Your task to perform on an android device: change text size in settings app Image 0: 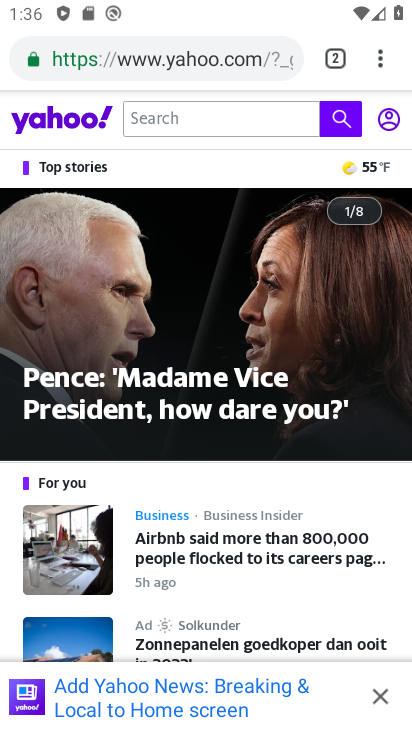
Step 0: press home button
Your task to perform on an android device: change text size in settings app Image 1: 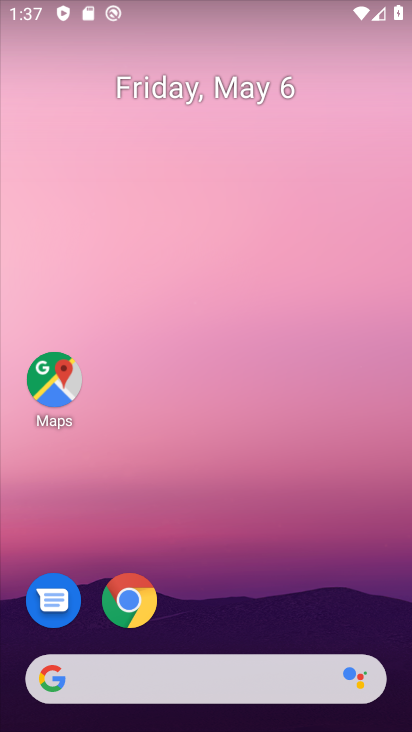
Step 1: drag from (242, 638) to (341, 39)
Your task to perform on an android device: change text size in settings app Image 2: 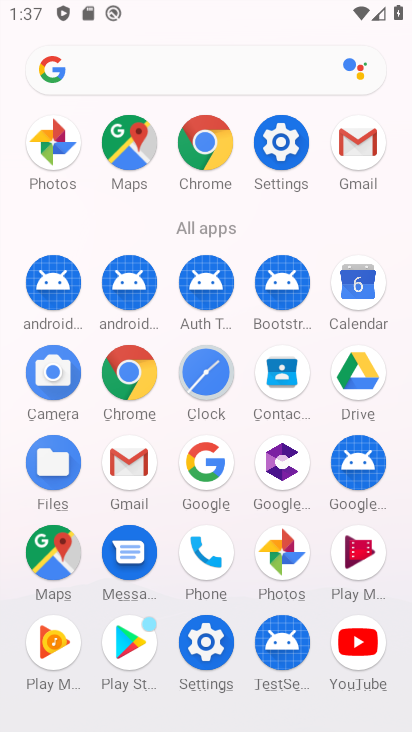
Step 2: click (283, 155)
Your task to perform on an android device: change text size in settings app Image 3: 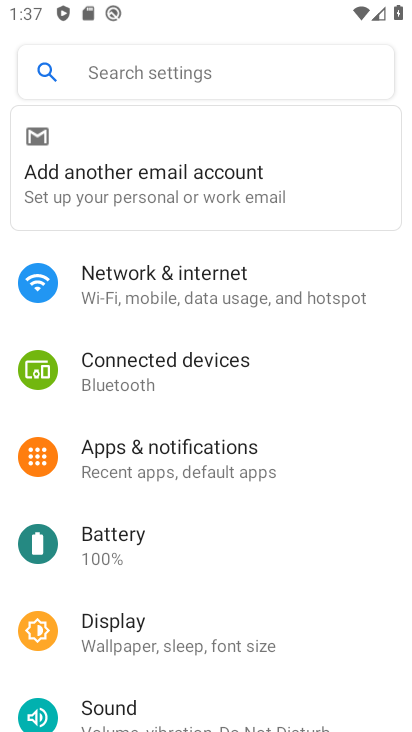
Step 3: drag from (180, 603) to (195, 456)
Your task to perform on an android device: change text size in settings app Image 4: 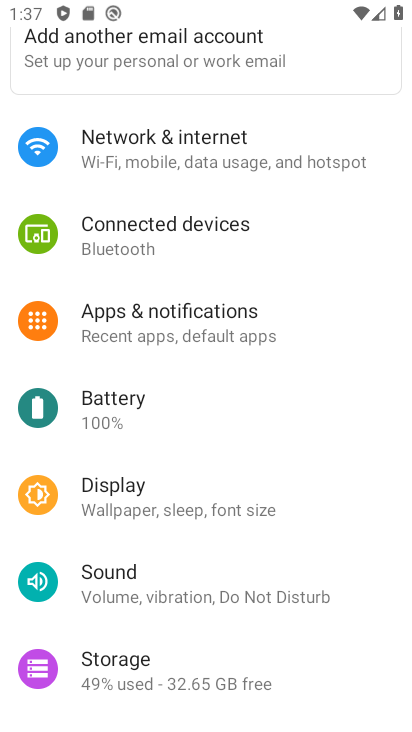
Step 4: click (166, 512)
Your task to perform on an android device: change text size in settings app Image 5: 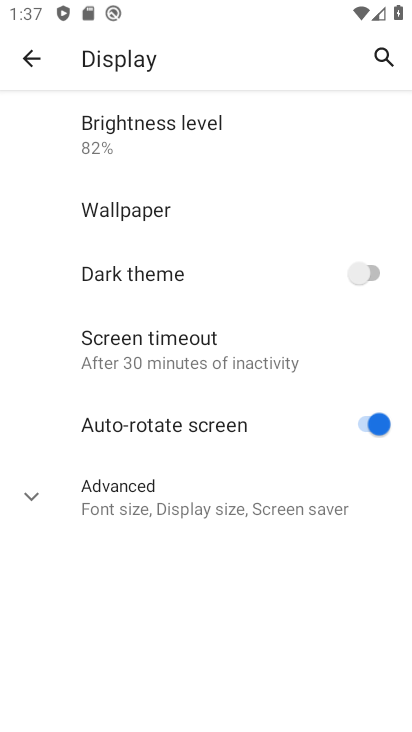
Step 5: click (166, 512)
Your task to perform on an android device: change text size in settings app Image 6: 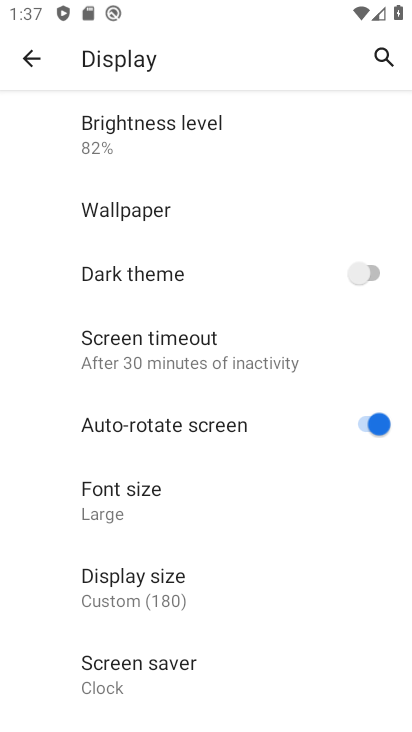
Step 6: click (148, 507)
Your task to perform on an android device: change text size in settings app Image 7: 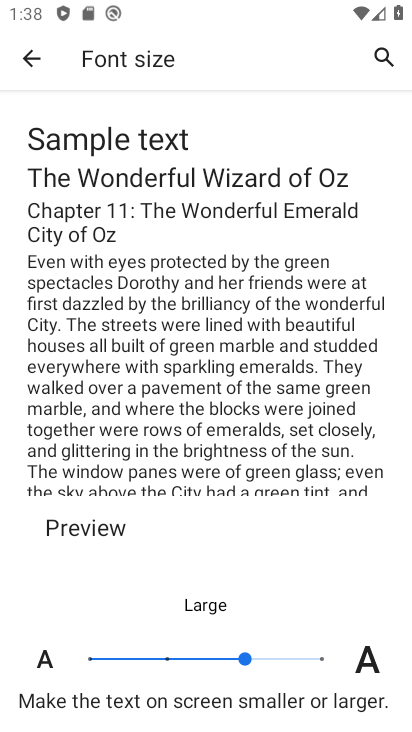
Step 7: click (314, 658)
Your task to perform on an android device: change text size in settings app Image 8: 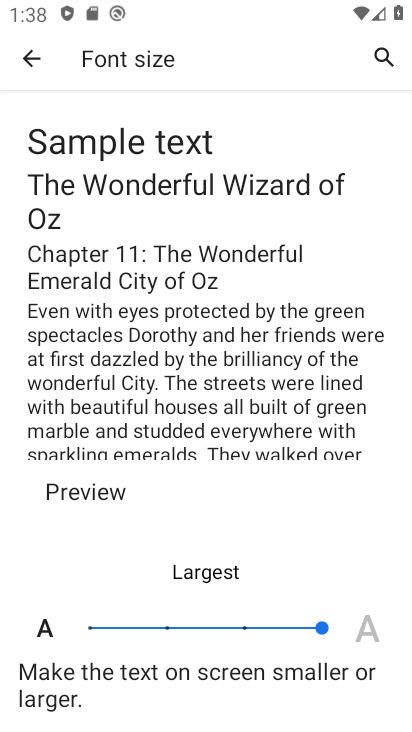
Step 8: task complete